Your task to perform on an android device: turn on translation in the chrome app Image 0: 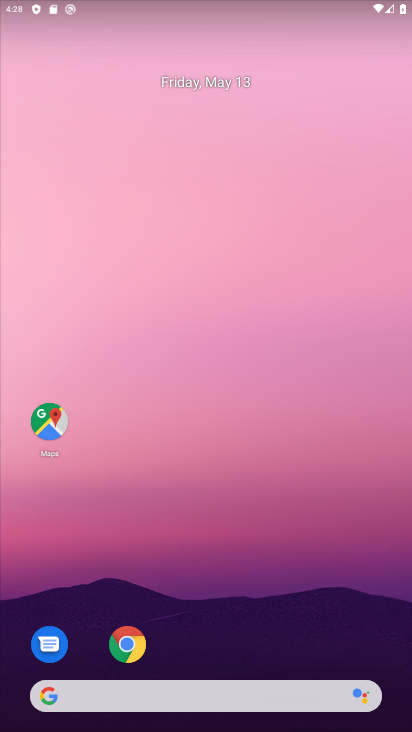
Step 0: click (131, 630)
Your task to perform on an android device: turn on translation in the chrome app Image 1: 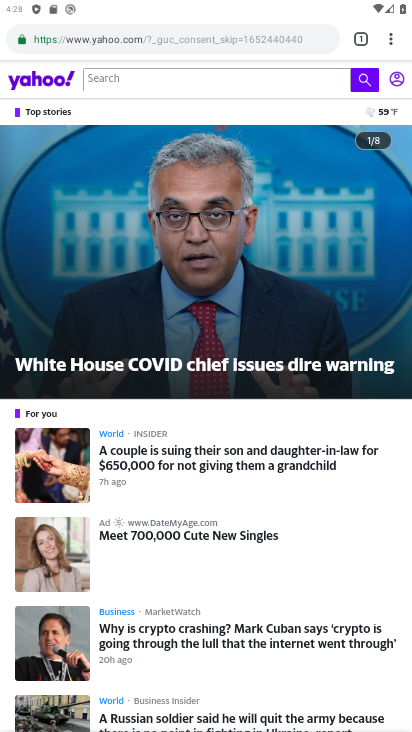
Step 1: click (391, 44)
Your task to perform on an android device: turn on translation in the chrome app Image 2: 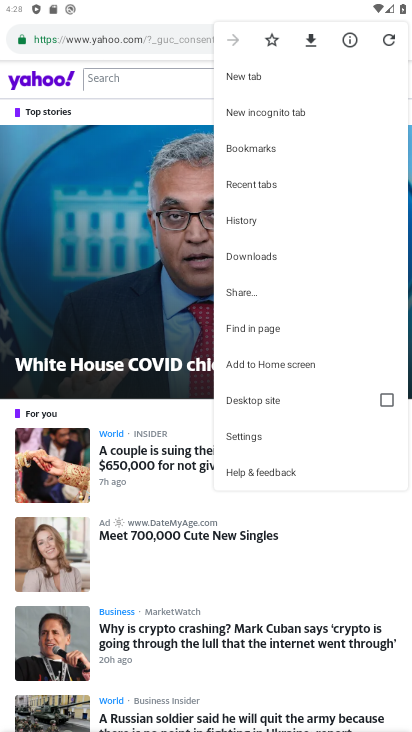
Step 2: click (252, 442)
Your task to perform on an android device: turn on translation in the chrome app Image 3: 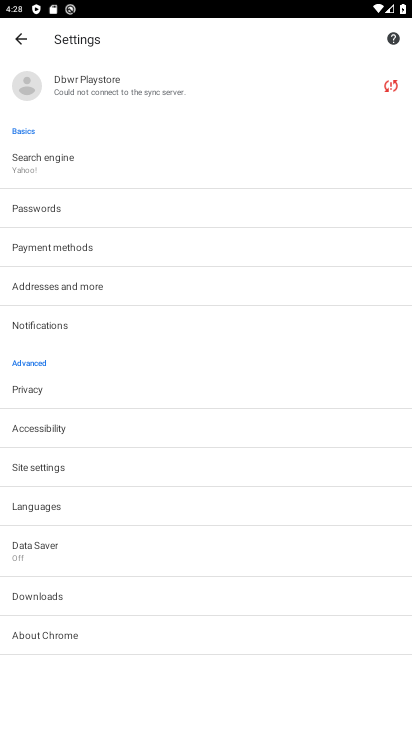
Step 3: click (46, 512)
Your task to perform on an android device: turn on translation in the chrome app Image 4: 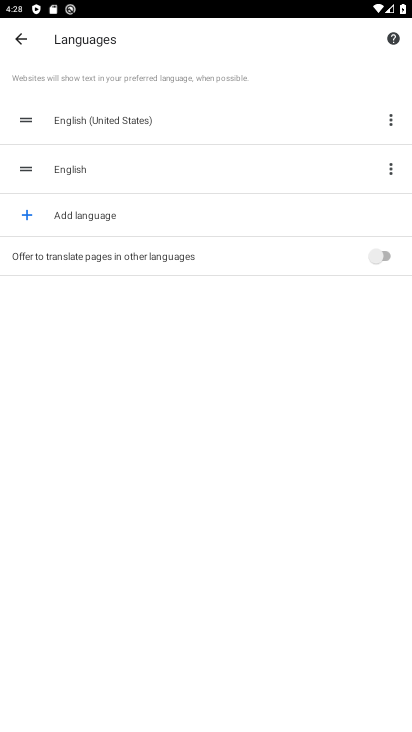
Step 4: click (384, 249)
Your task to perform on an android device: turn on translation in the chrome app Image 5: 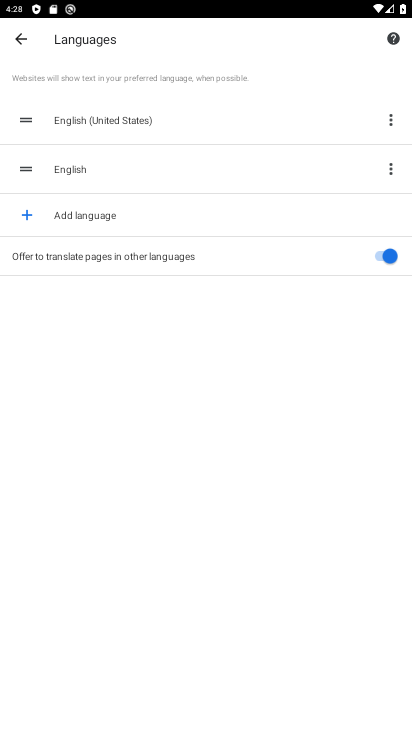
Step 5: task complete